Your task to perform on an android device: Find coffee shops on Maps Image 0: 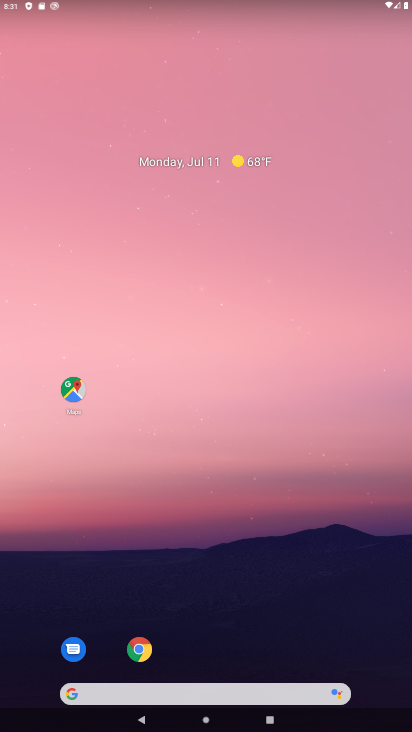
Step 0: drag from (293, 617) to (105, 194)
Your task to perform on an android device: Find coffee shops on Maps Image 1: 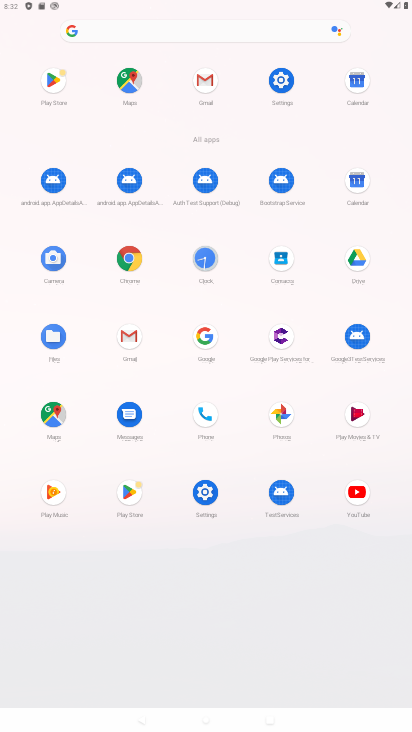
Step 1: click (52, 414)
Your task to perform on an android device: Find coffee shops on Maps Image 2: 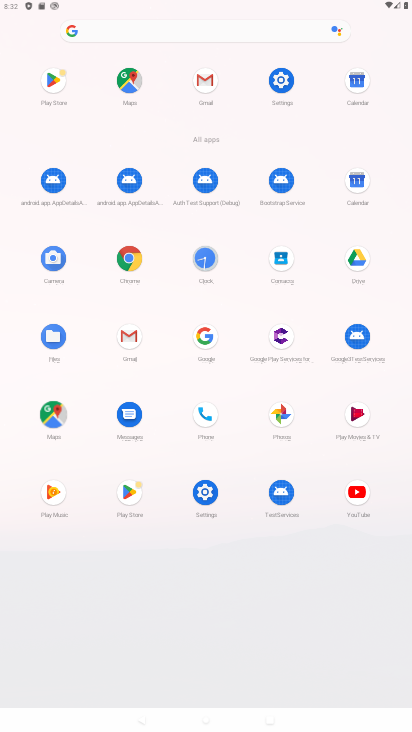
Step 2: click (49, 414)
Your task to perform on an android device: Find coffee shops on Maps Image 3: 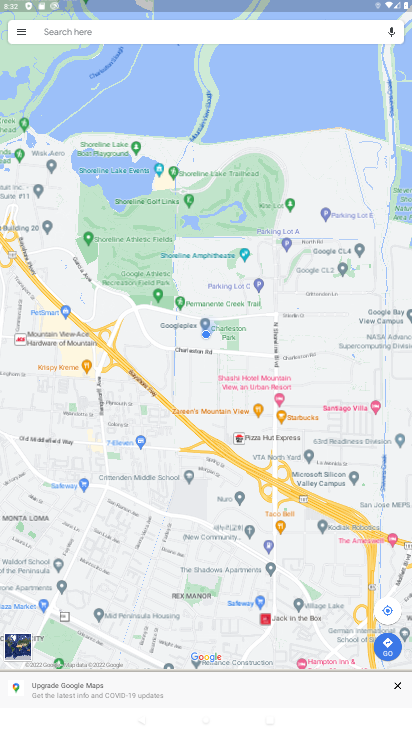
Step 3: click (84, 36)
Your task to perform on an android device: Find coffee shops on Maps Image 4: 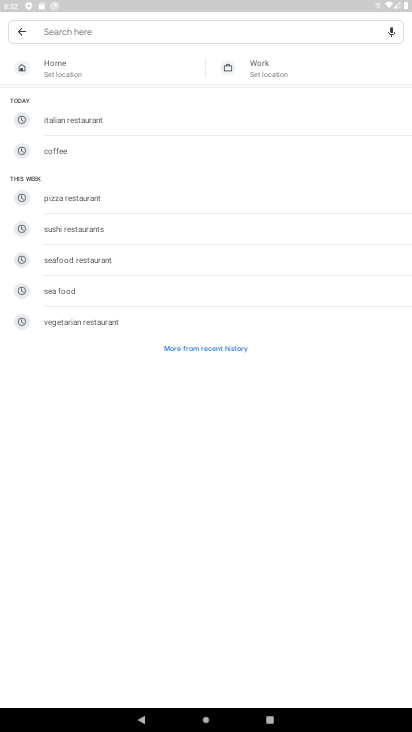
Step 4: type "coffee  shops"
Your task to perform on an android device: Find coffee shops on Maps Image 5: 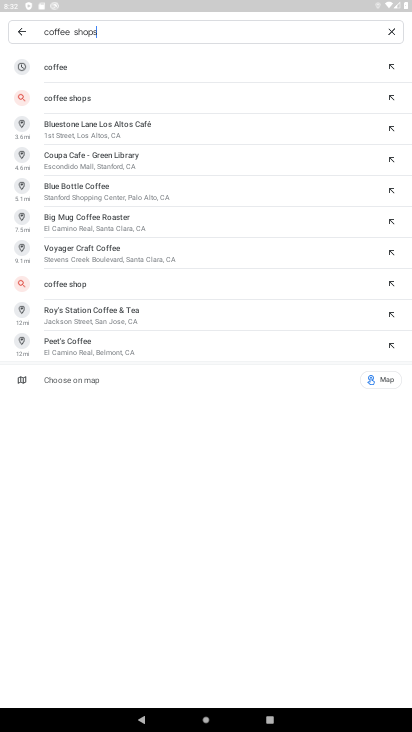
Step 5: click (124, 99)
Your task to perform on an android device: Find coffee shops on Maps Image 6: 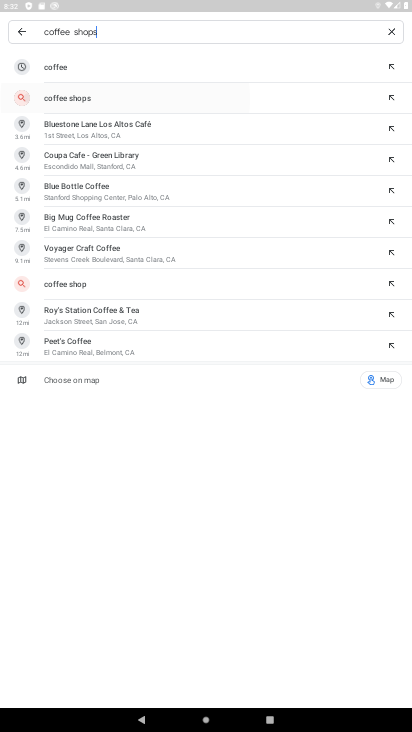
Step 6: click (131, 101)
Your task to perform on an android device: Find coffee shops on Maps Image 7: 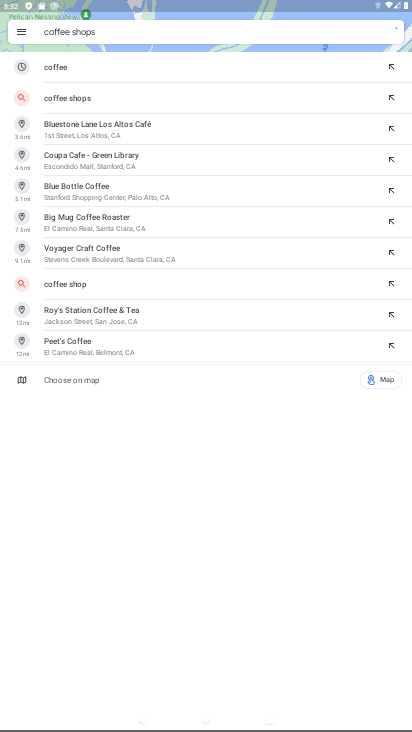
Step 7: click (137, 104)
Your task to perform on an android device: Find coffee shops on Maps Image 8: 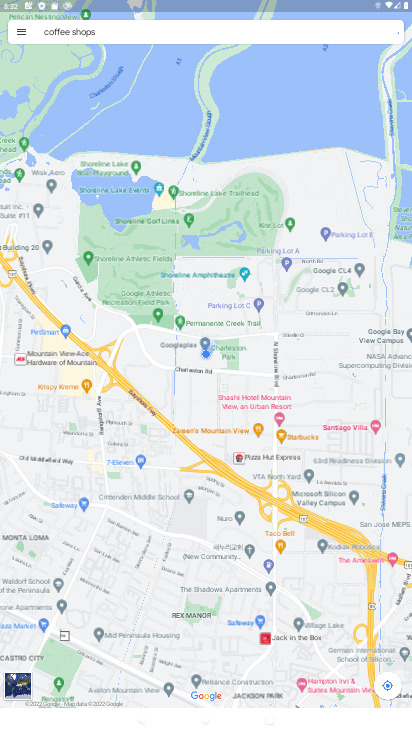
Step 8: task complete